Your task to perform on an android device: Go to calendar. Show me events next week Image 0: 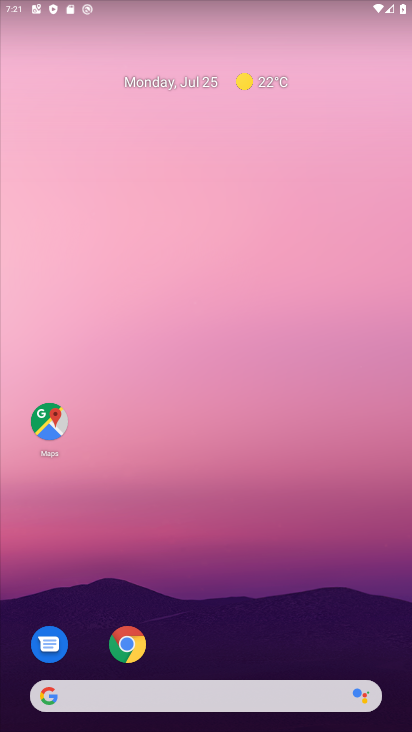
Step 0: press home button
Your task to perform on an android device: Go to calendar. Show me events next week Image 1: 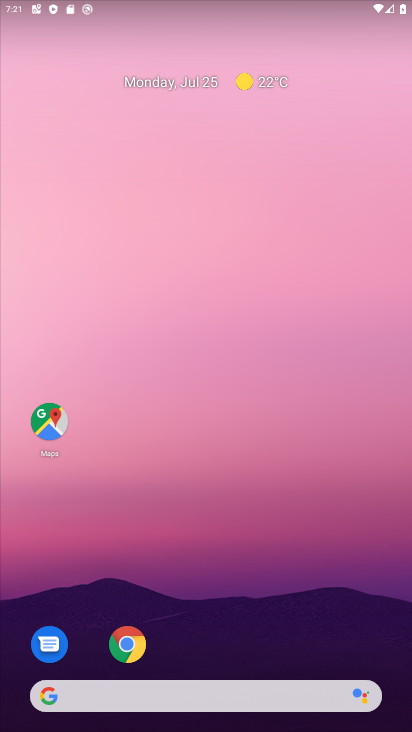
Step 1: drag from (216, 665) to (214, 83)
Your task to perform on an android device: Go to calendar. Show me events next week Image 2: 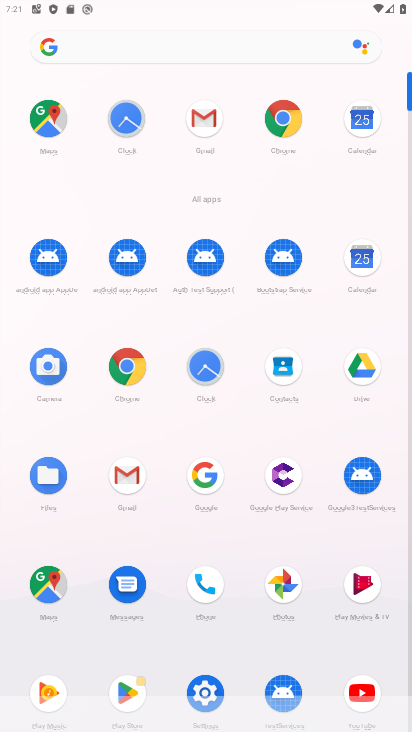
Step 2: click (360, 254)
Your task to perform on an android device: Go to calendar. Show me events next week Image 3: 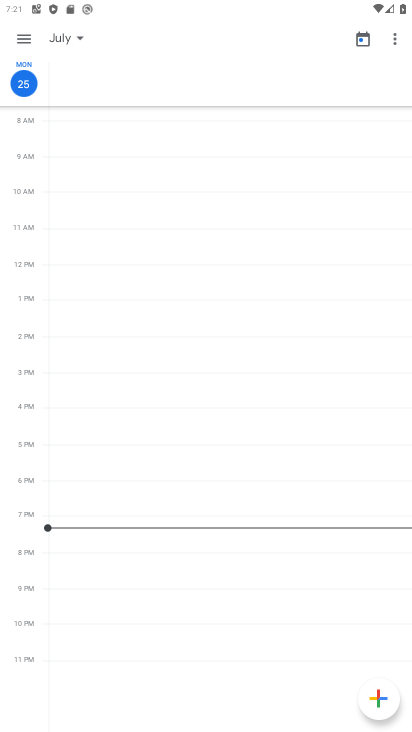
Step 3: click (22, 37)
Your task to perform on an android device: Go to calendar. Show me events next week Image 4: 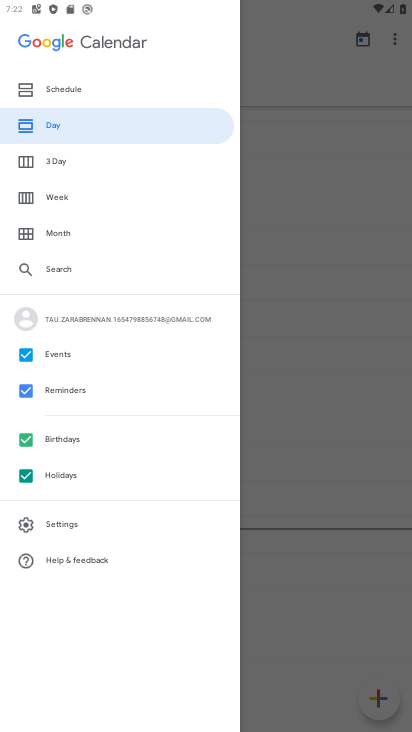
Step 4: click (25, 473)
Your task to perform on an android device: Go to calendar. Show me events next week Image 5: 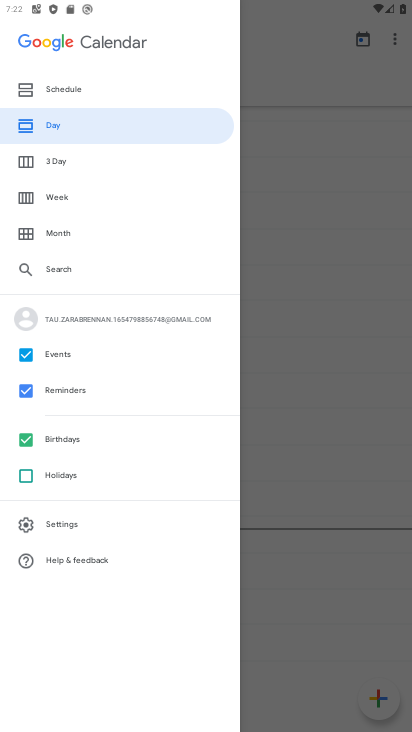
Step 5: click (19, 436)
Your task to perform on an android device: Go to calendar. Show me events next week Image 6: 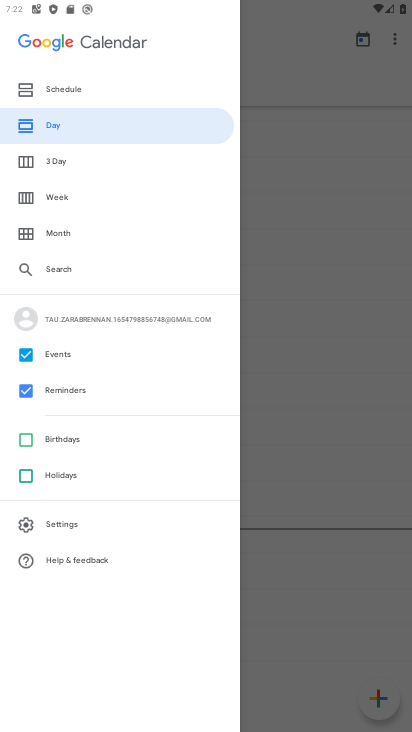
Step 6: click (24, 388)
Your task to perform on an android device: Go to calendar. Show me events next week Image 7: 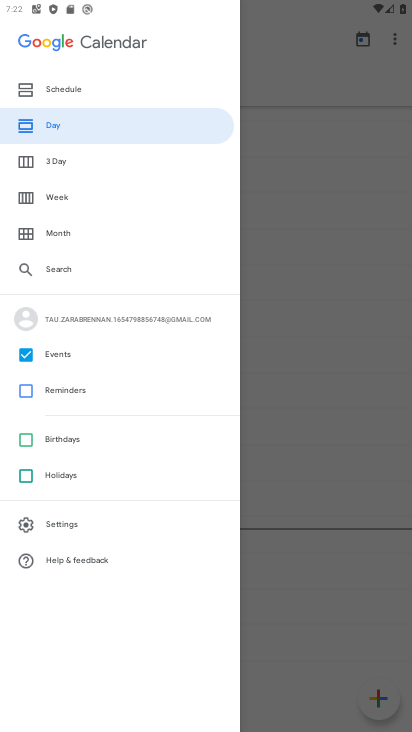
Step 7: click (36, 197)
Your task to perform on an android device: Go to calendar. Show me events next week Image 8: 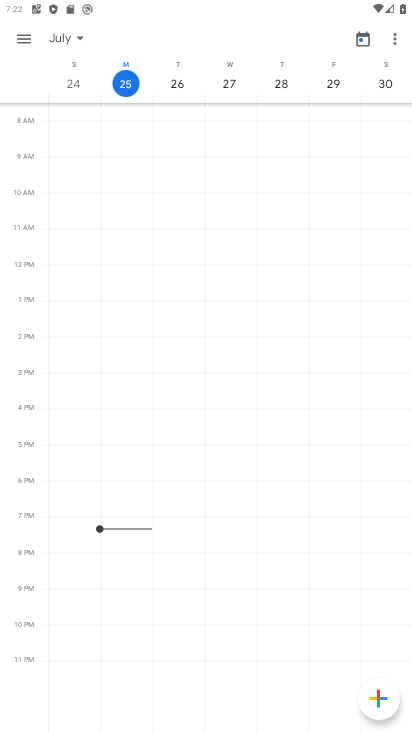
Step 8: task complete